Your task to perform on an android device: Open the stopwatch Image 0: 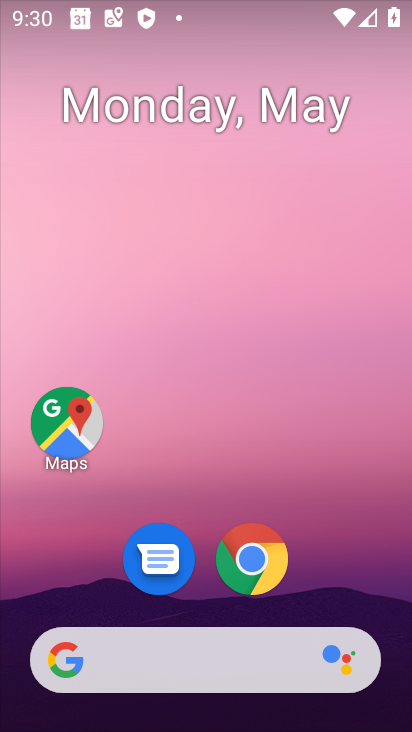
Step 0: drag from (331, 544) to (259, 135)
Your task to perform on an android device: Open the stopwatch Image 1: 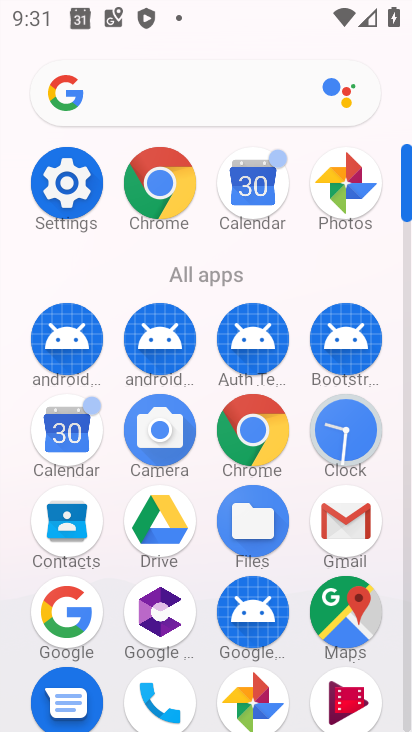
Step 1: click (348, 428)
Your task to perform on an android device: Open the stopwatch Image 2: 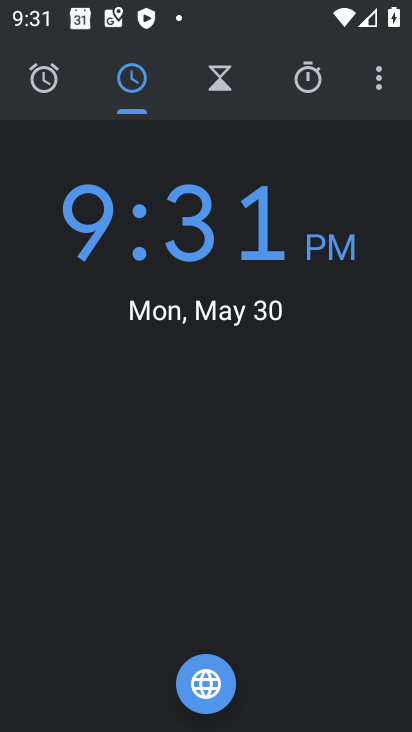
Step 2: click (312, 75)
Your task to perform on an android device: Open the stopwatch Image 3: 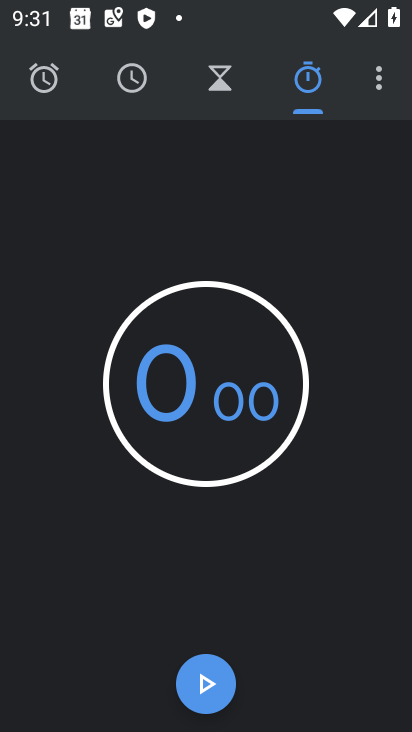
Step 3: task complete